Your task to perform on an android device: change the clock style Image 0: 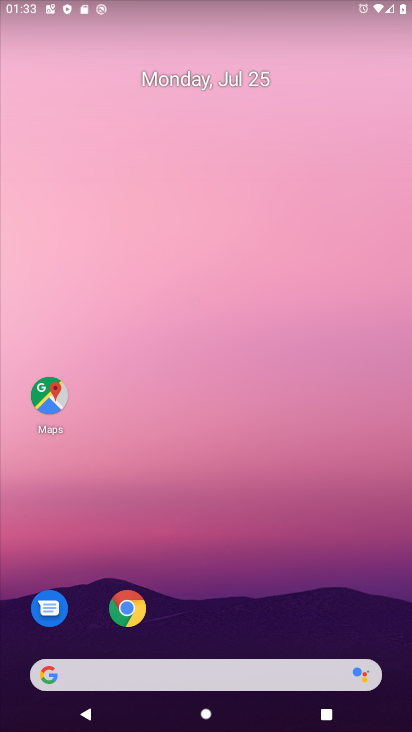
Step 0: drag from (229, 642) to (233, 114)
Your task to perform on an android device: change the clock style Image 1: 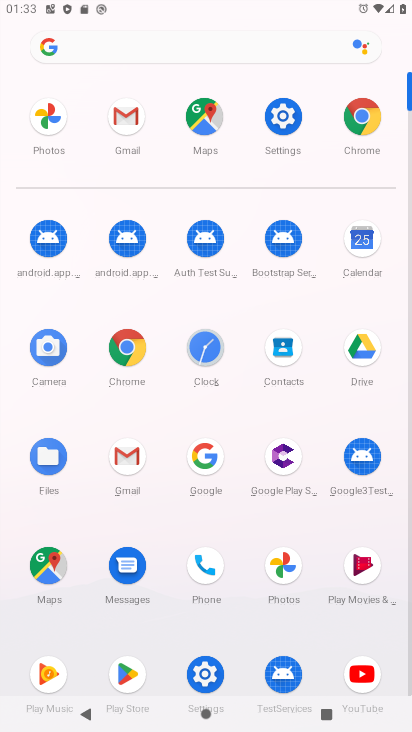
Step 1: click (201, 363)
Your task to perform on an android device: change the clock style Image 2: 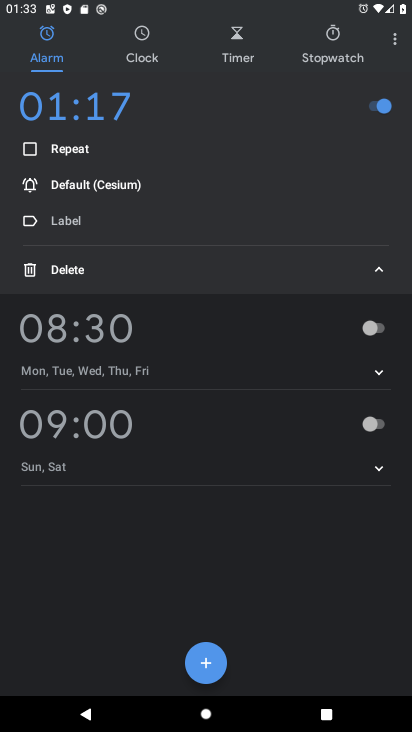
Step 2: click (394, 48)
Your task to perform on an android device: change the clock style Image 3: 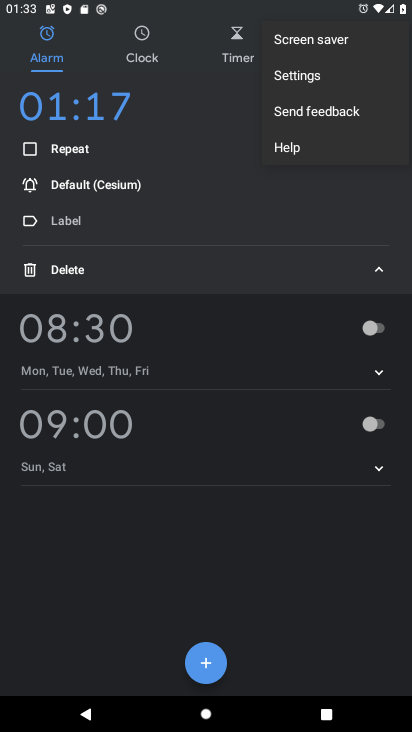
Step 3: click (315, 75)
Your task to perform on an android device: change the clock style Image 4: 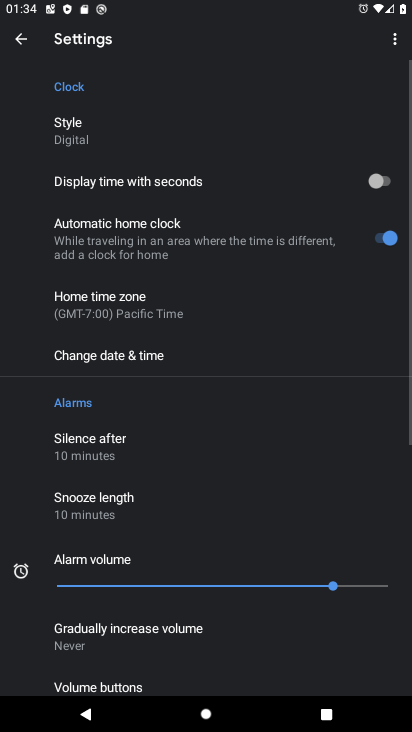
Step 4: click (128, 137)
Your task to perform on an android device: change the clock style Image 5: 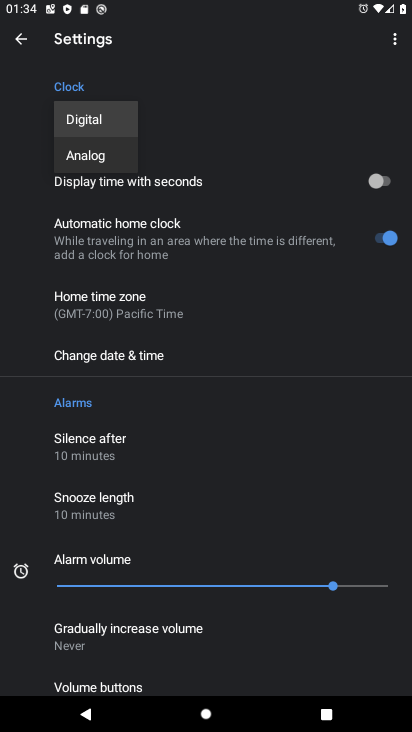
Step 5: click (105, 146)
Your task to perform on an android device: change the clock style Image 6: 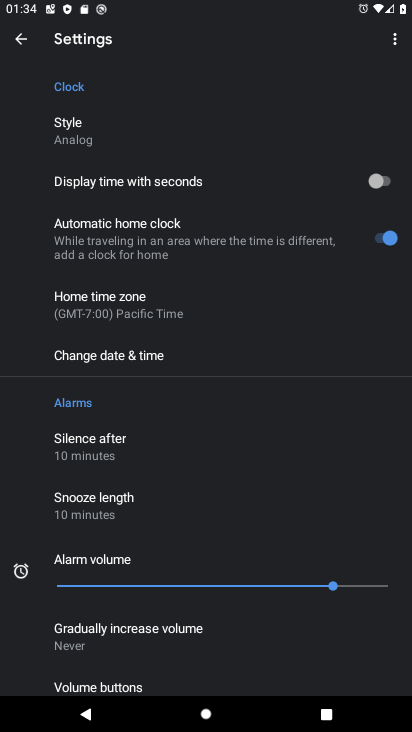
Step 6: task complete